Your task to perform on an android device: Turn on the flashlight Image 0: 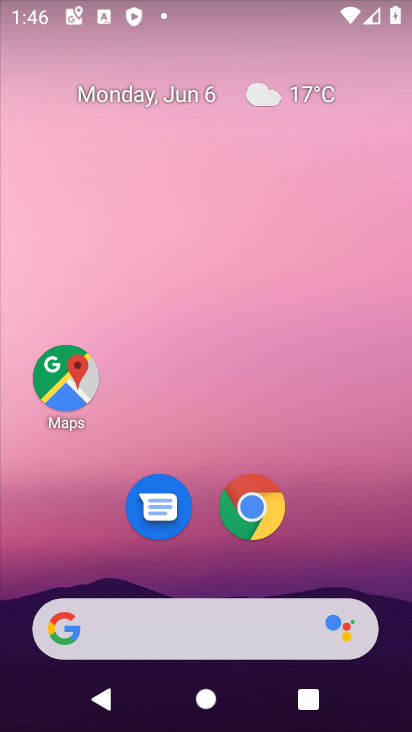
Step 0: drag from (209, 432) to (229, 0)
Your task to perform on an android device: Turn on the flashlight Image 1: 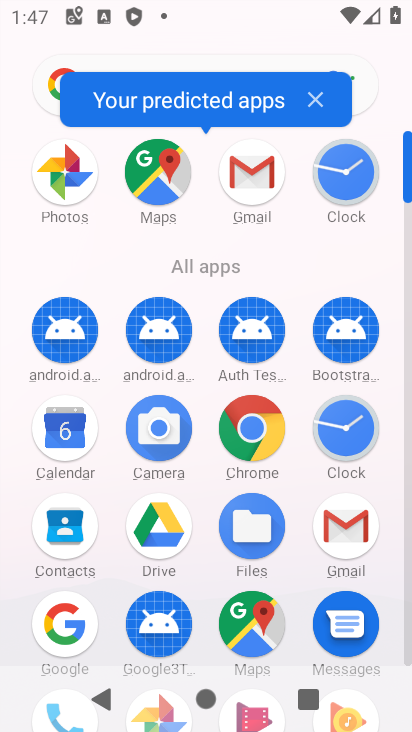
Step 1: drag from (206, 477) to (220, 138)
Your task to perform on an android device: Turn on the flashlight Image 2: 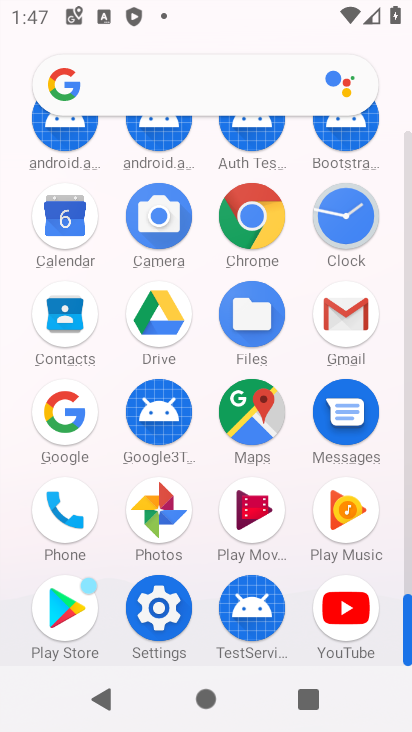
Step 2: click (169, 586)
Your task to perform on an android device: Turn on the flashlight Image 3: 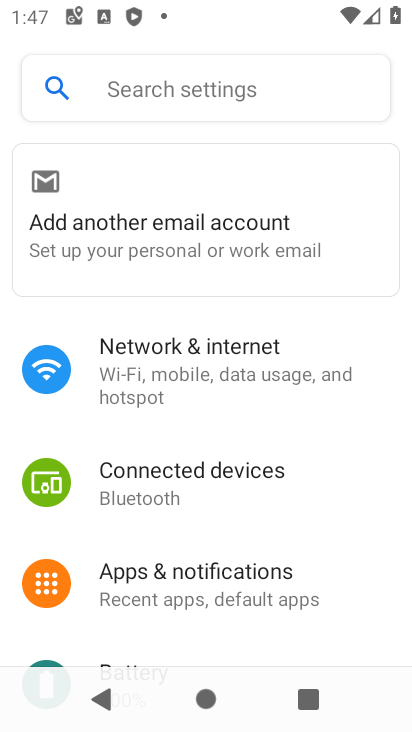
Step 3: click (262, 86)
Your task to perform on an android device: Turn on the flashlight Image 4: 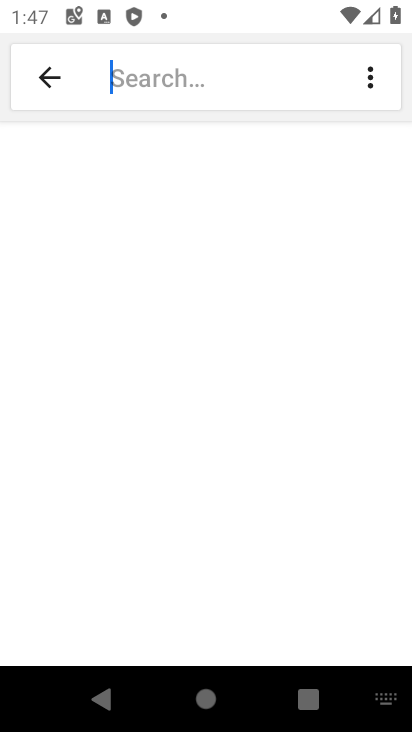
Step 4: type "Flashlight"
Your task to perform on an android device: Turn on the flashlight Image 5: 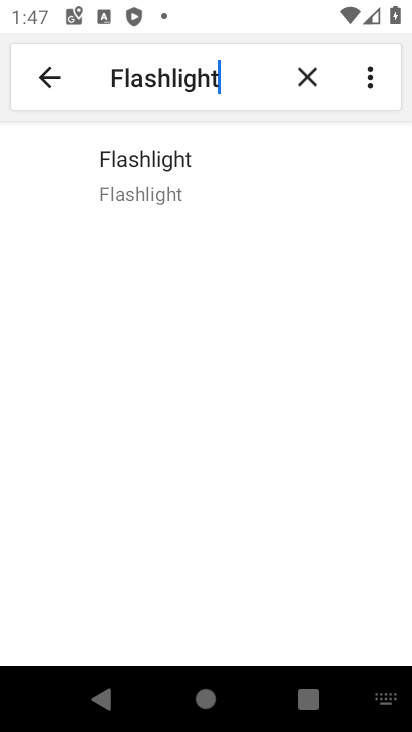
Step 5: click (164, 169)
Your task to perform on an android device: Turn on the flashlight Image 6: 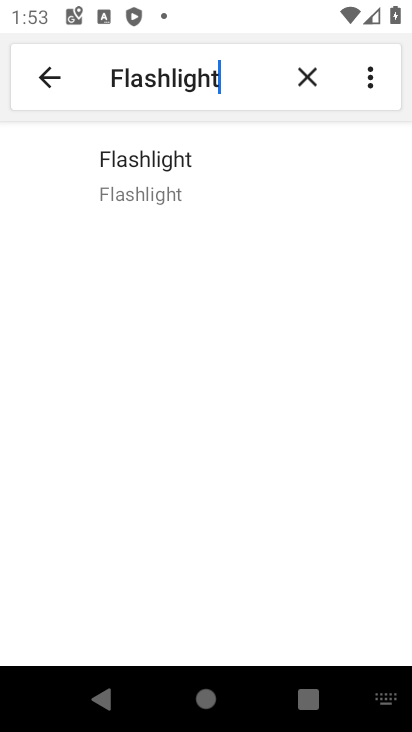
Step 6: task complete